Your task to perform on an android device: What's on my calendar tomorrow? Image 0: 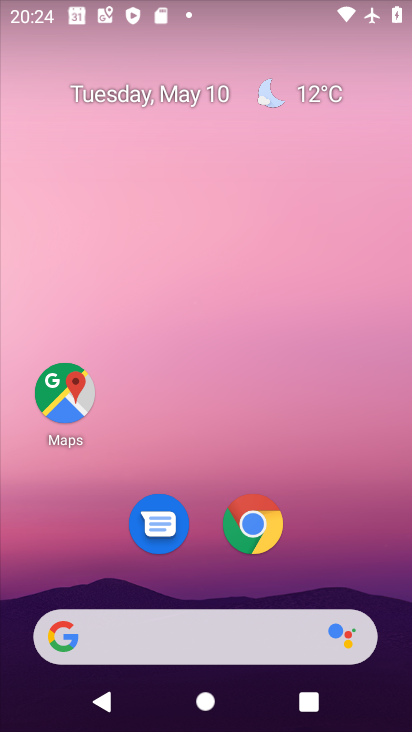
Step 0: drag from (330, 511) to (316, 42)
Your task to perform on an android device: What's on my calendar tomorrow? Image 1: 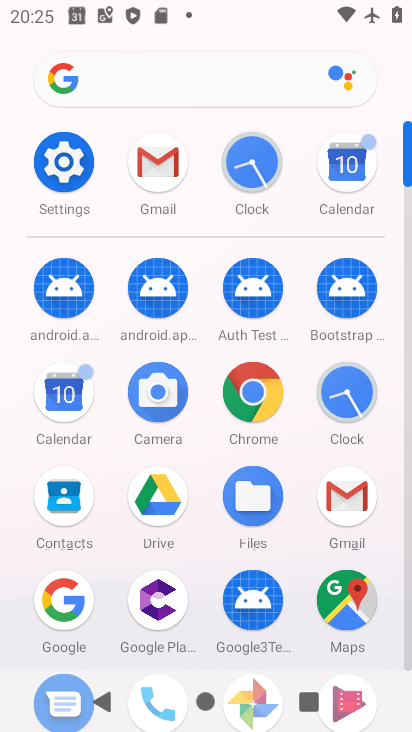
Step 1: click (345, 168)
Your task to perform on an android device: What's on my calendar tomorrow? Image 2: 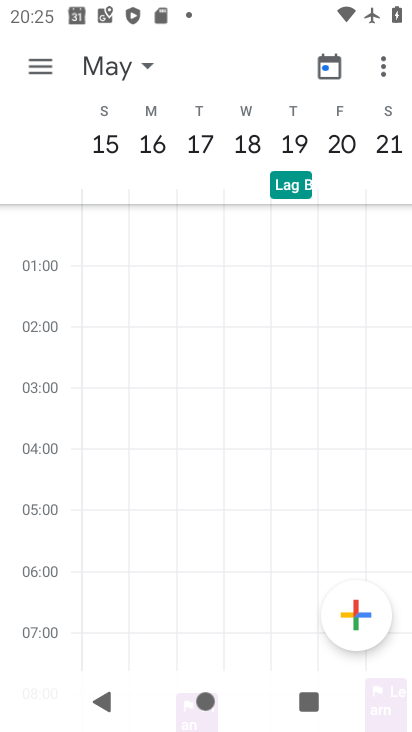
Step 2: drag from (105, 397) to (397, 347)
Your task to perform on an android device: What's on my calendar tomorrow? Image 3: 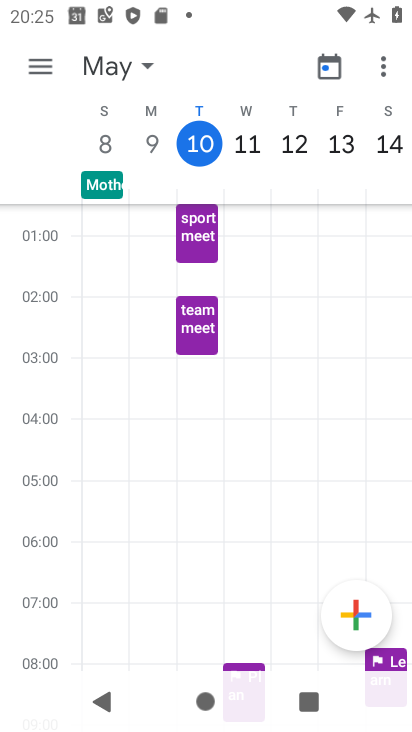
Step 3: click (203, 144)
Your task to perform on an android device: What's on my calendar tomorrow? Image 4: 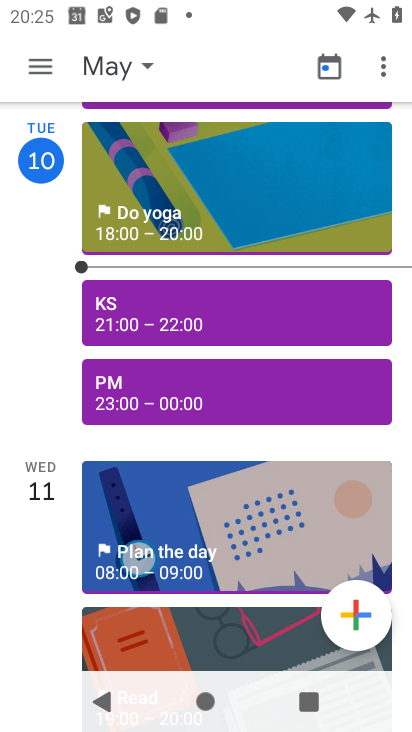
Step 4: task complete